Your task to perform on an android device: toggle javascript in the chrome app Image 0: 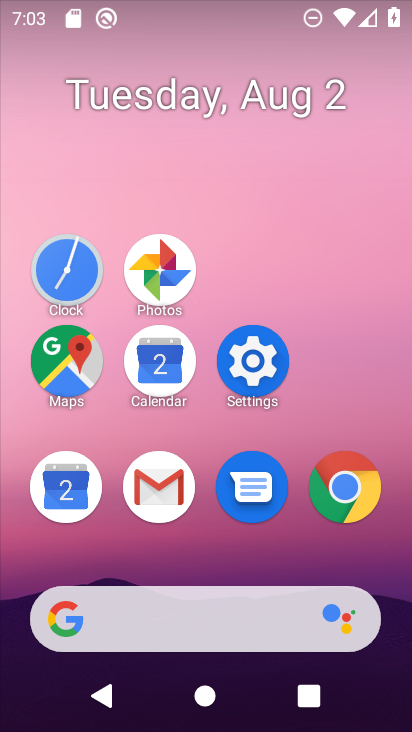
Step 0: click (351, 488)
Your task to perform on an android device: toggle javascript in the chrome app Image 1: 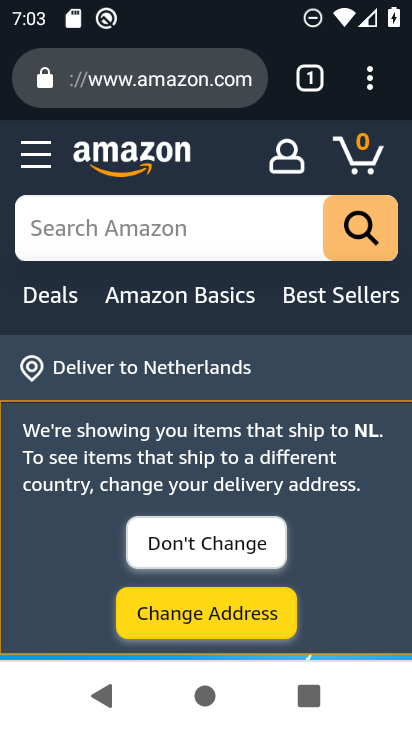
Step 1: click (369, 72)
Your task to perform on an android device: toggle javascript in the chrome app Image 2: 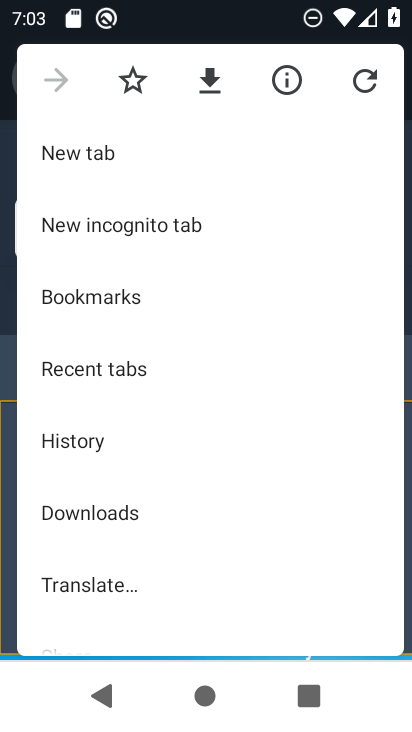
Step 2: drag from (249, 562) to (192, 190)
Your task to perform on an android device: toggle javascript in the chrome app Image 3: 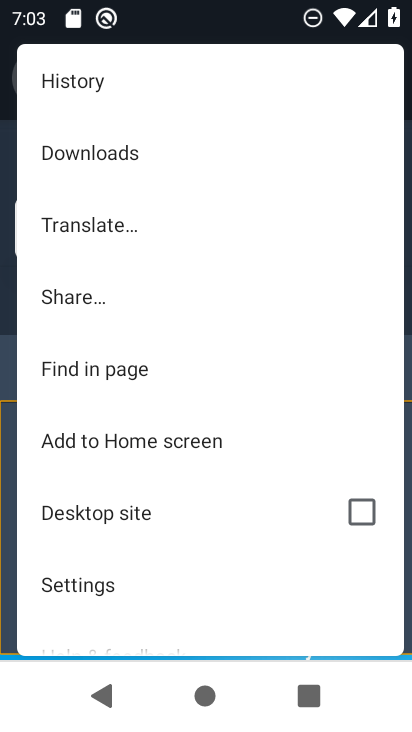
Step 3: click (82, 583)
Your task to perform on an android device: toggle javascript in the chrome app Image 4: 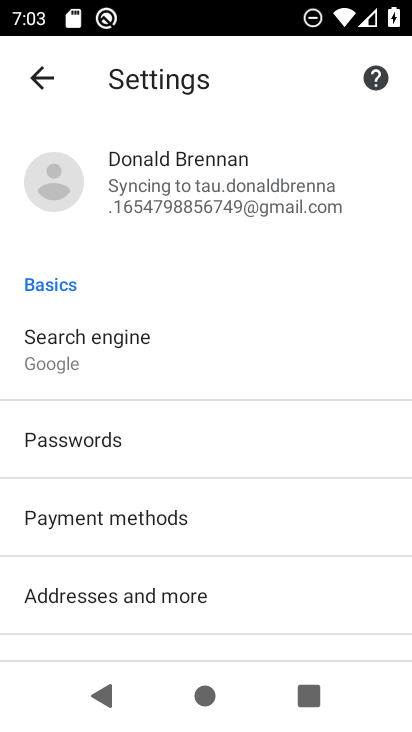
Step 4: drag from (243, 559) to (193, 13)
Your task to perform on an android device: toggle javascript in the chrome app Image 5: 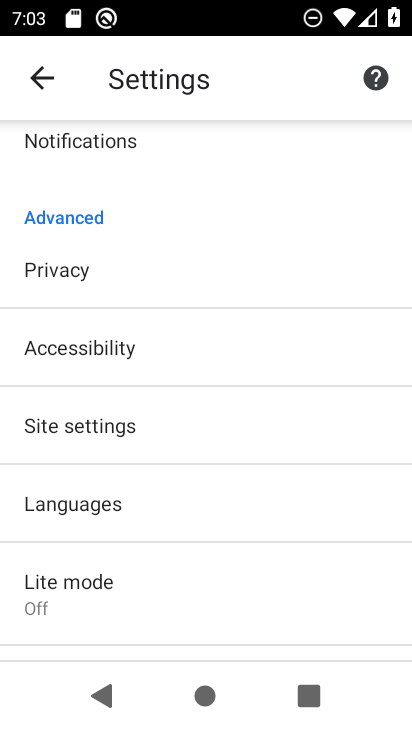
Step 5: click (94, 422)
Your task to perform on an android device: toggle javascript in the chrome app Image 6: 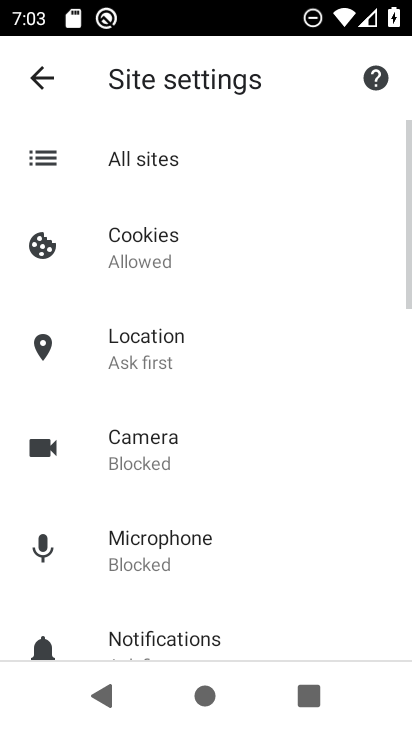
Step 6: drag from (248, 535) to (227, 215)
Your task to perform on an android device: toggle javascript in the chrome app Image 7: 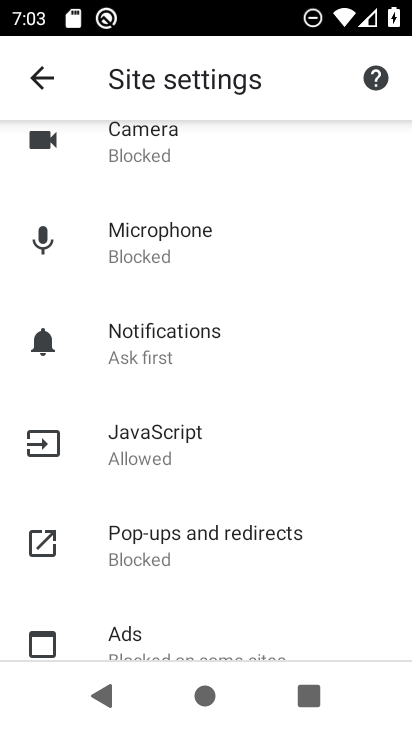
Step 7: click (168, 433)
Your task to perform on an android device: toggle javascript in the chrome app Image 8: 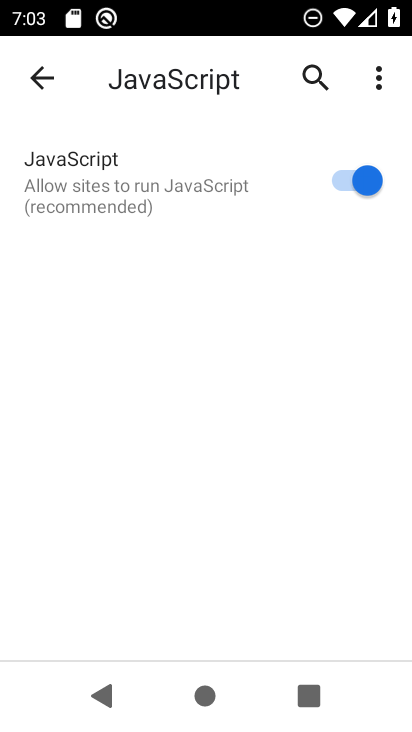
Step 8: click (355, 174)
Your task to perform on an android device: toggle javascript in the chrome app Image 9: 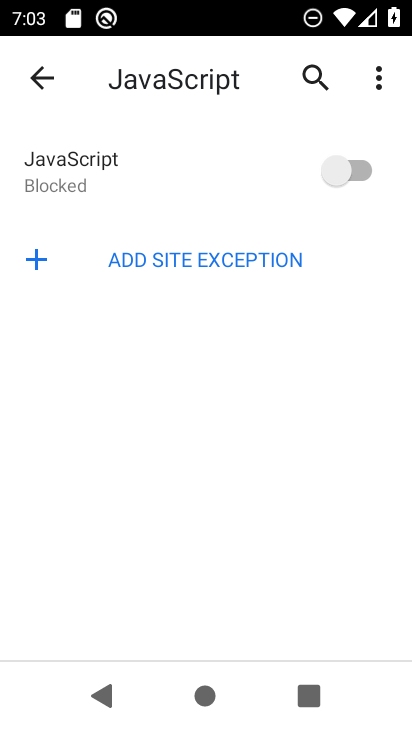
Step 9: task complete